Your task to perform on an android device: Open my contact list Image 0: 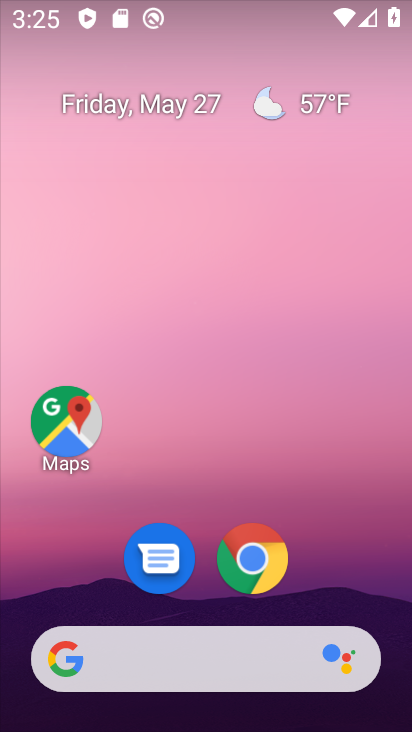
Step 0: drag from (331, 591) to (251, 44)
Your task to perform on an android device: Open my contact list Image 1: 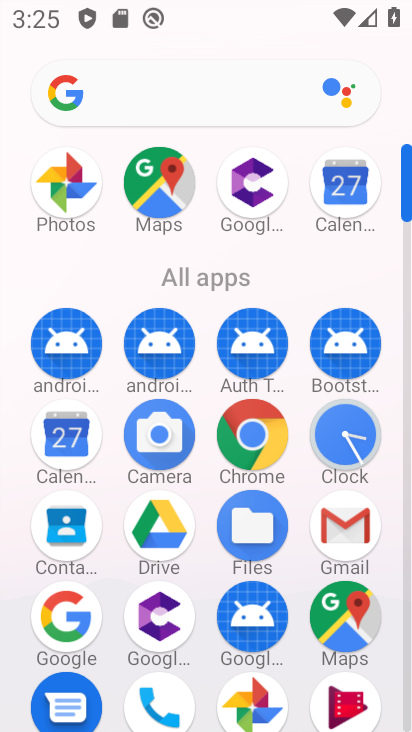
Step 1: click (88, 513)
Your task to perform on an android device: Open my contact list Image 2: 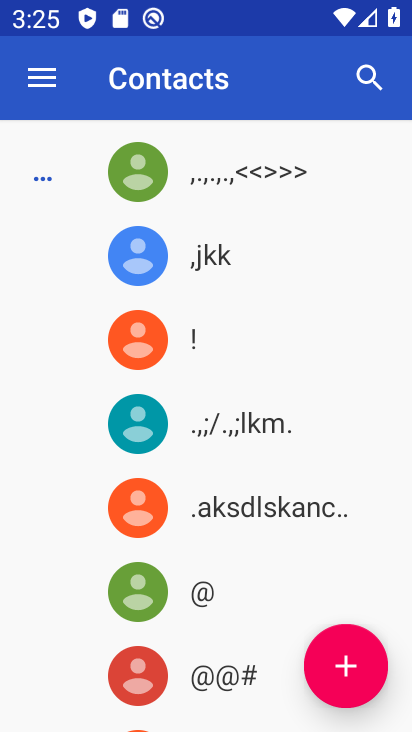
Step 2: task complete